Your task to perform on an android device: Open Youtube and go to "Your channel" Image 0: 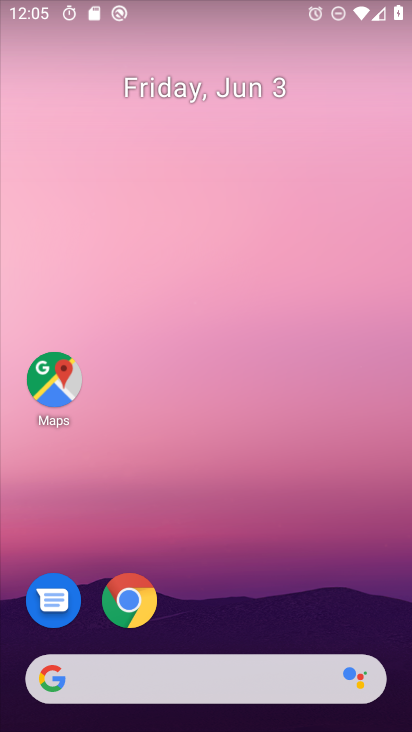
Step 0: drag from (204, 506) to (249, 42)
Your task to perform on an android device: Open Youtube and go to "Your channel" Image 1: 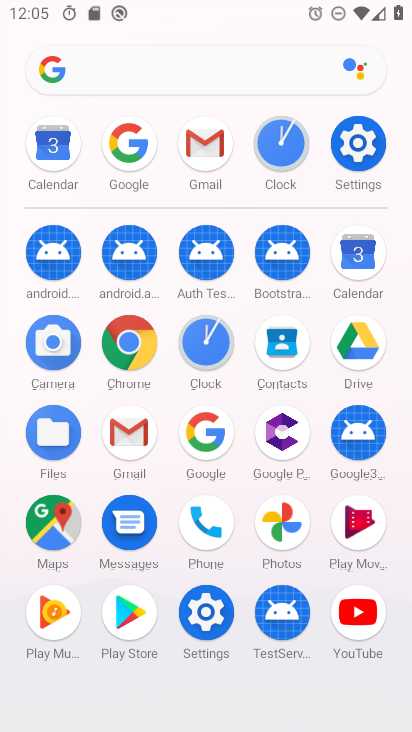
Step 1: click (359, 610)
Your task to perform on an android device: Open Youtube and go to "Your channel" Image 2: 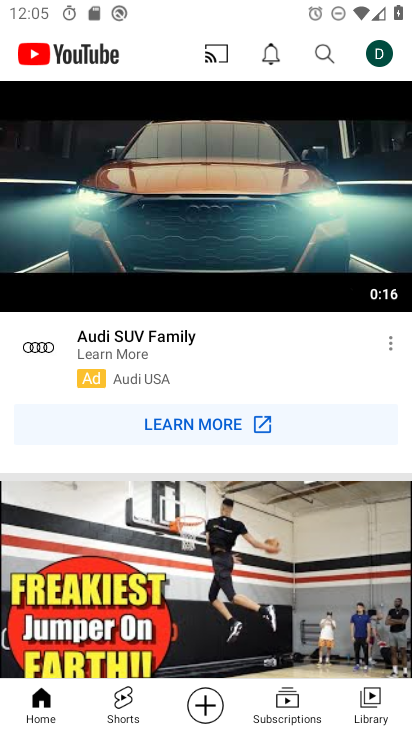
Step 2: click (384, 49)
Your task to perform on an android device: Open Youtube and go to "Your channel" Image 3: 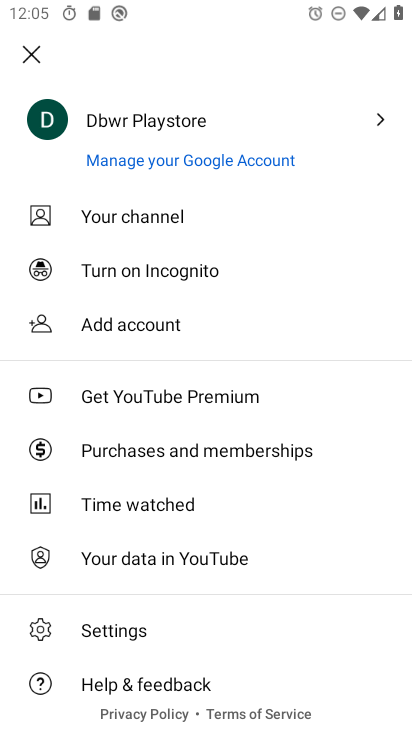
Step 3: click (184, 216)
Your task to perform on an android device: Open Youtube and go to "Your channel" Image 4: 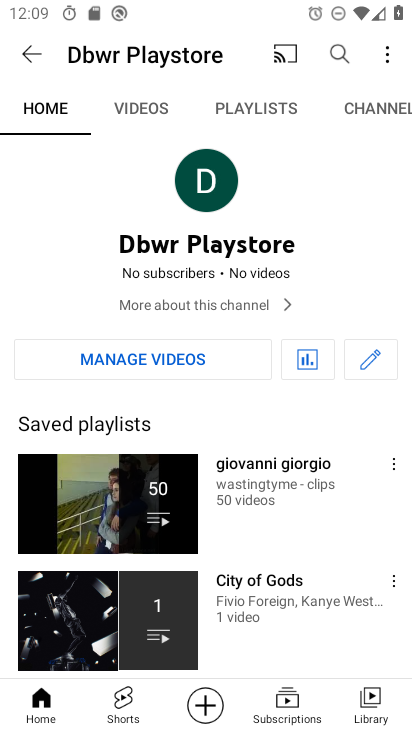
Step 4: task complete